Your task to perform on an android device: toggle notification dots Image 0: 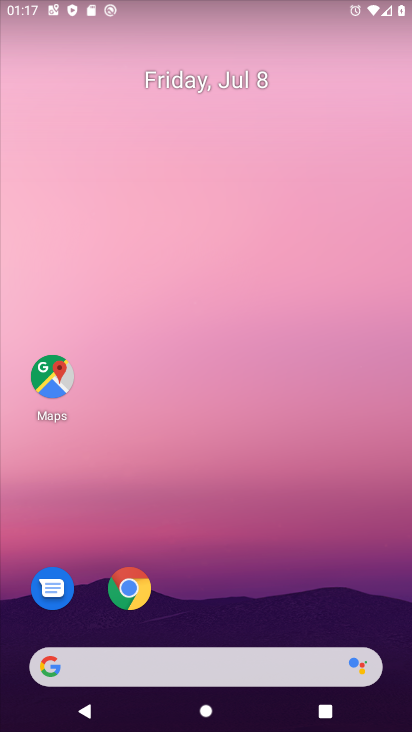
Step 0: drag from (176, 532) to (201, 205)
Your task to perform on an android device: toggle notification dots Image 1: 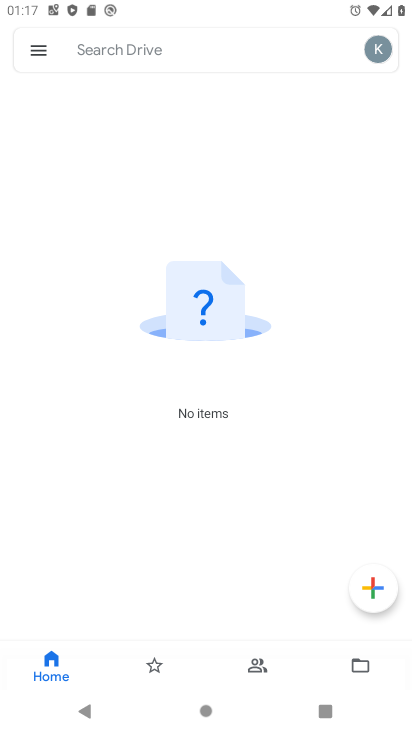
Step 1: press home button
Your task to perform on an android device: toggle notification dots Image 2: 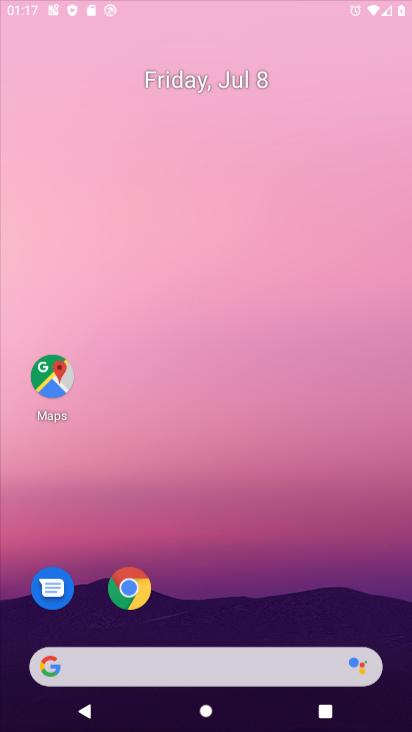
Step 2: drag from (215, 647) to (274, 260)
Your task to perform on an android device: toggle notification dots Image 3: 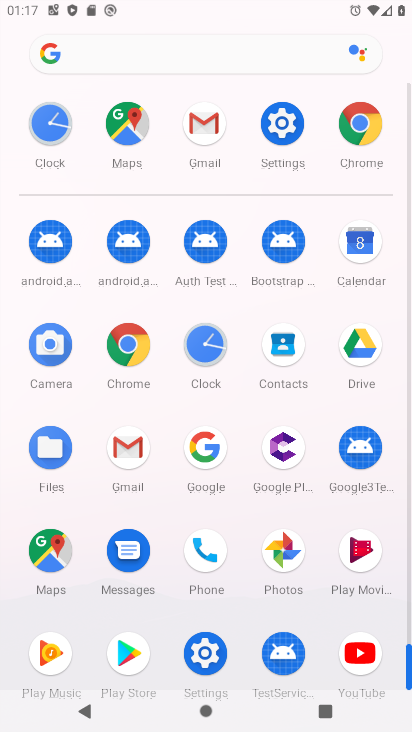
Step 3: click (283, 117)
Your task to perform on an android device: toggle notification dots Image 4: 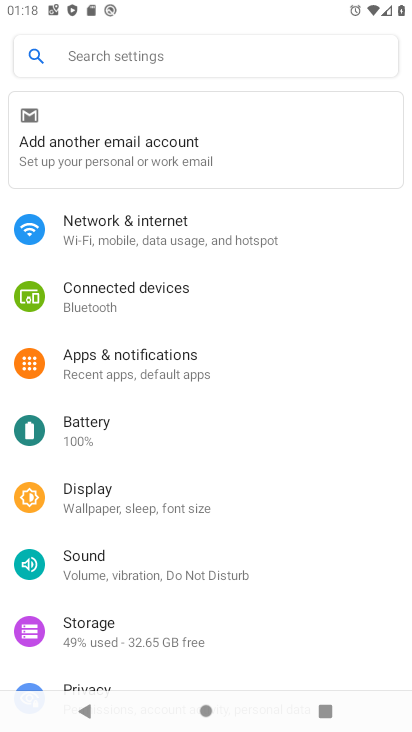
Step 4: click (147, 361)
Your task to perform on an android device: toggle notification dots Image 5: 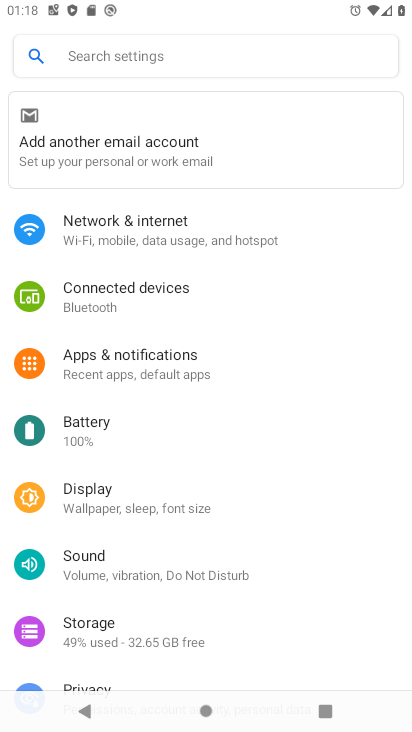
Step 5: click (147, 361)
Your task to perform on an android device: toggle notification dots Image 6: 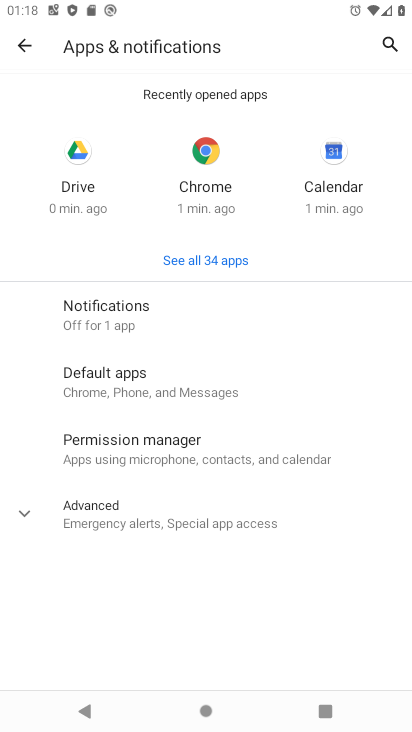
Step 6: click (91, 299)
Your task to perform on an android device: toggle notification dots Image 7: 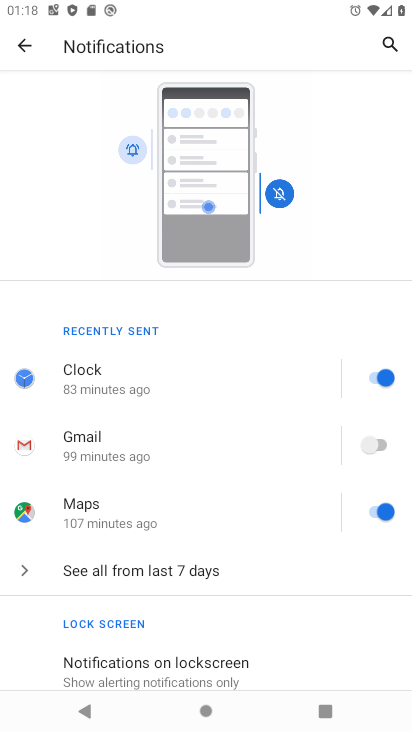
Step 7: drag from (120, 678) to (239, 288)
Your task to perform on an android device: toggle notification dots Image 8: 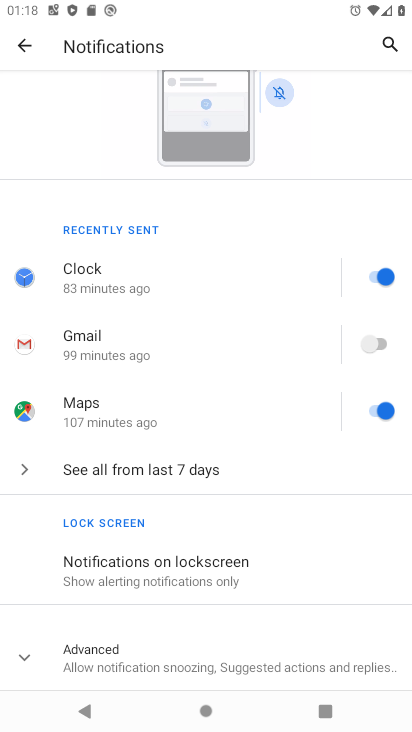
Step 8: click (108, 656)
Your task to perform on an android device: toggle notification dots Image 9: 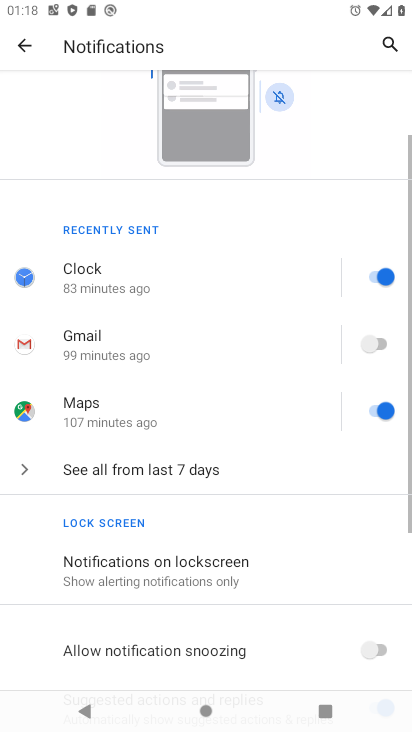
Step 9: drag from (108, 655) to (0, 83)
Your task to perform on an android device: toggle notification dots Image 10: 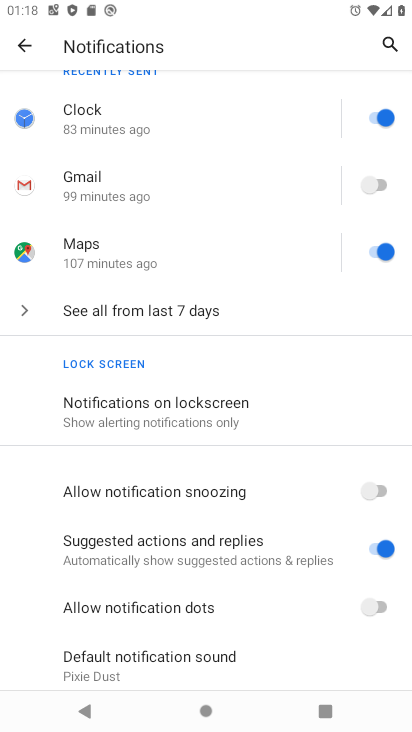
Step 10: drag from (268, 439) to (273, 195)
Your task to perform on an android device: toggle notification dots Image 11: 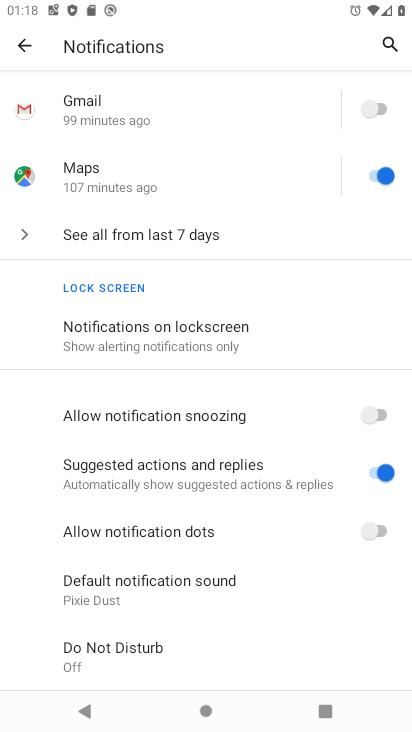
Step 11: click (346, 531)
Your task to perform on an android device: toggle notification dots Image 12: 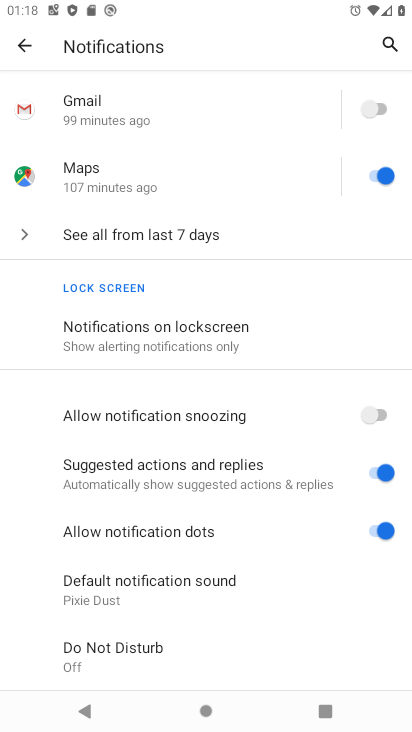
Step 12: task complete